Your task to perform on an android device: turn on sleep mode Image 0: 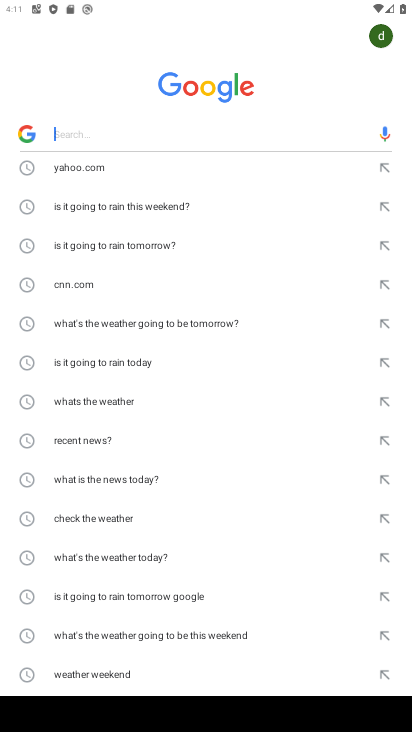
Step 0: press home button
Your task to perform on an android device: turn on sleep mode Image 1: 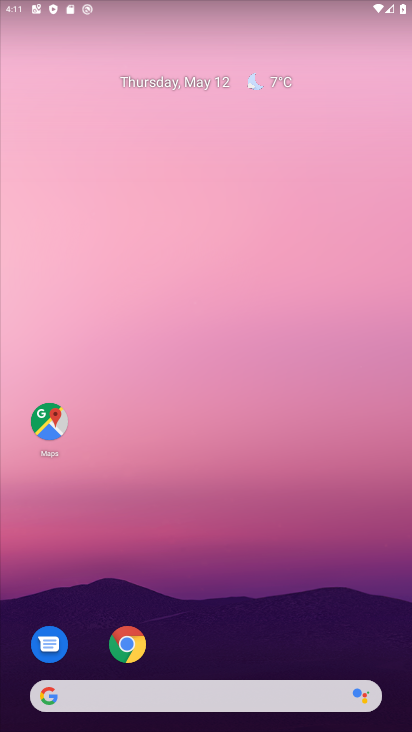
Step 1: drag from (205, 665) to (225, 64)
Your task to perform on an android device: turn on sleep mode Image 2: 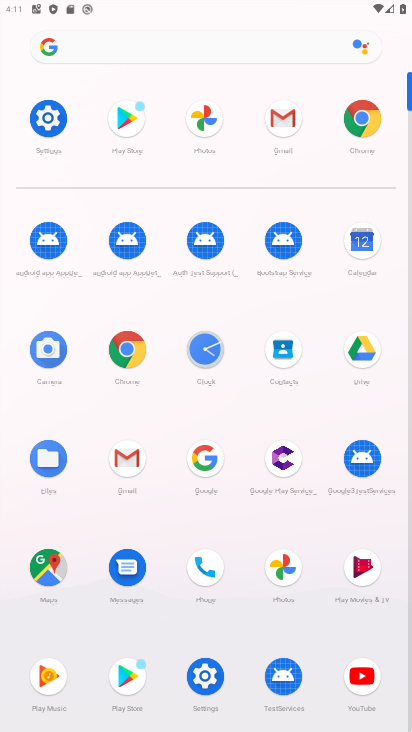
Step 2: click (48, 122)
Your task to perform on an android device: turn on sleep mode Image 3: 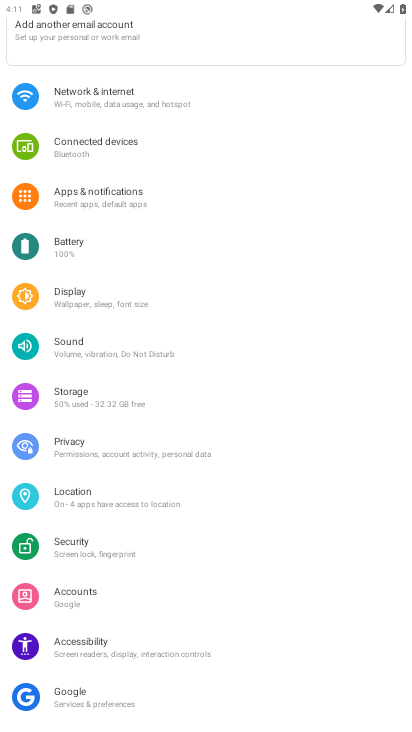
Step 3: click (99, 293)
Your task to perform on an android device: turn on sleep mode Image 4: 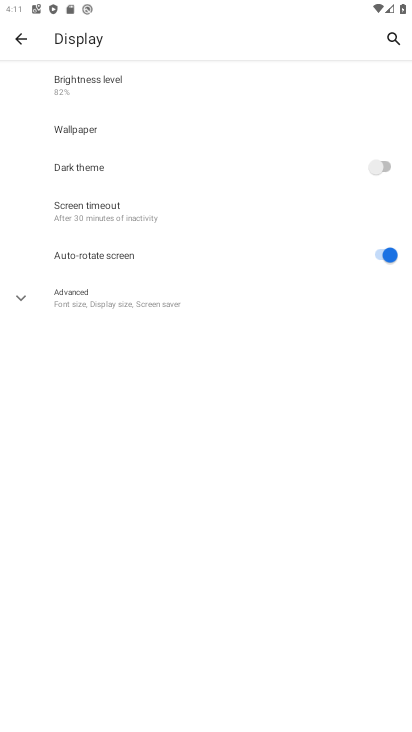
Step 4: click (65, 292)
Your task to perform on an android device: turn on sleep mode Image 5: 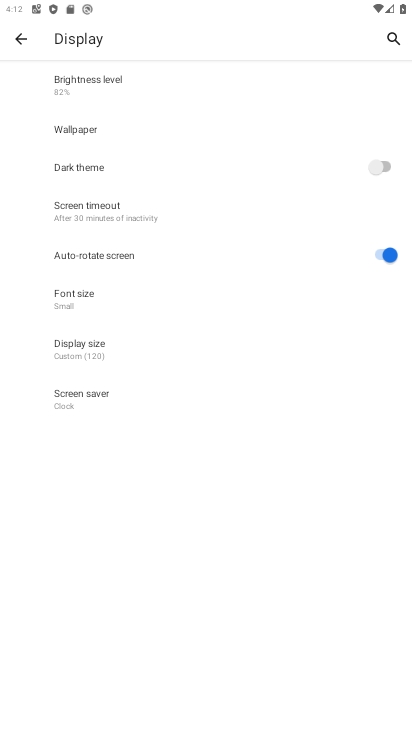
Step 5: task complete